Your task to perform on an android device: Go to Google Image 0: 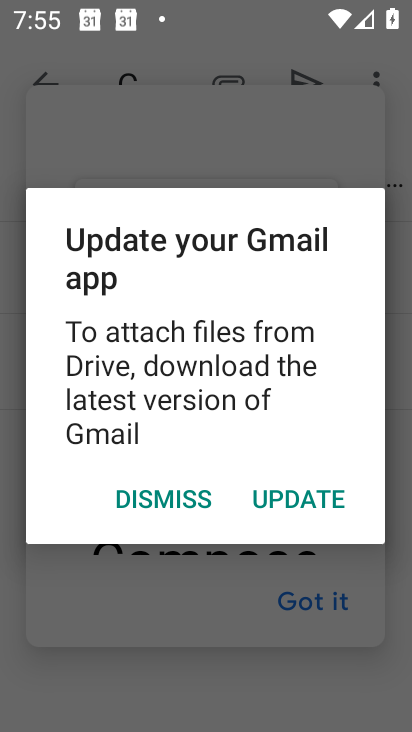
Step 0: click (299, 606)
Your task to perform on an android device: Go to Google Image 1: 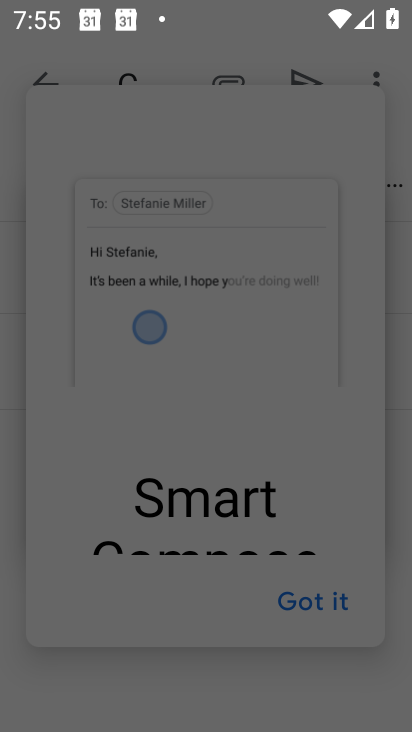
Step 1: press home button
Your task to perform on an android device: Go to Google Image 2: 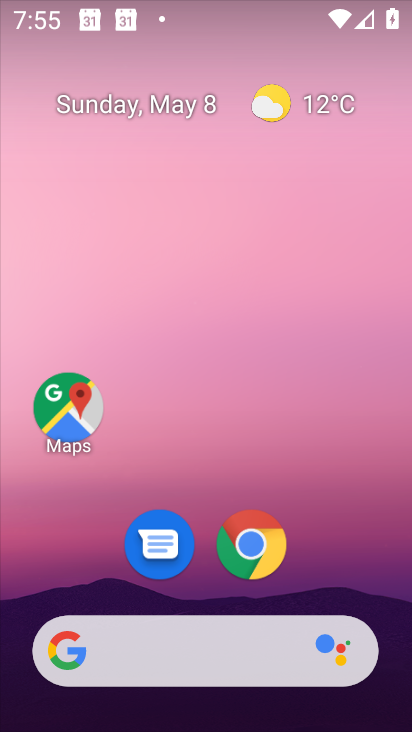
Step 2: click (186, 652)
Your task to perform on an android device: Go to Google Image 3: 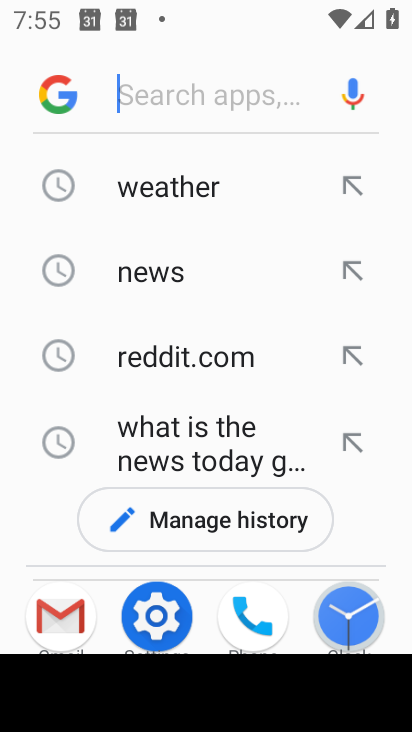
Step 3: task complete